Your task to perform on an android device: Turn on the flashlight Image 0: 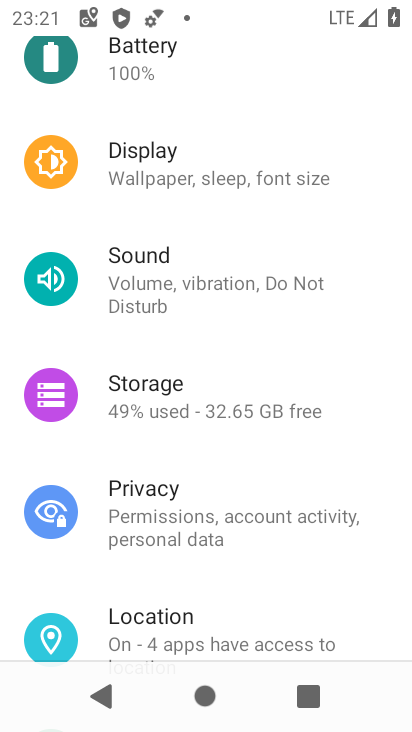
Step 0: drag from (318, 212) to (227, 720)
Your task to perform on an android device: Turn on the flashlight Image 1: 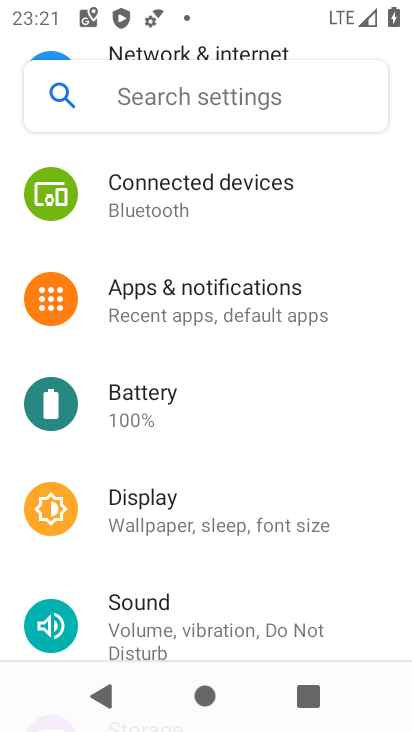
Step 1: click (185, 100)
Your task to perform on an android device: Turn on the flashlight Image 2: 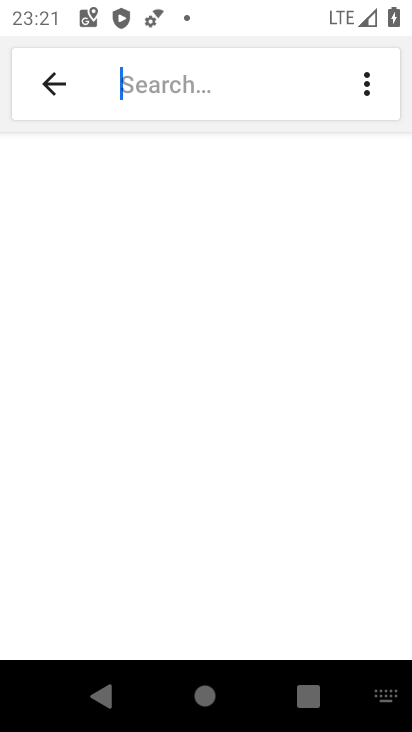
Step 2: type "flashlight"
Your task to perform on an android device: Turn on the flashlight Image 3: 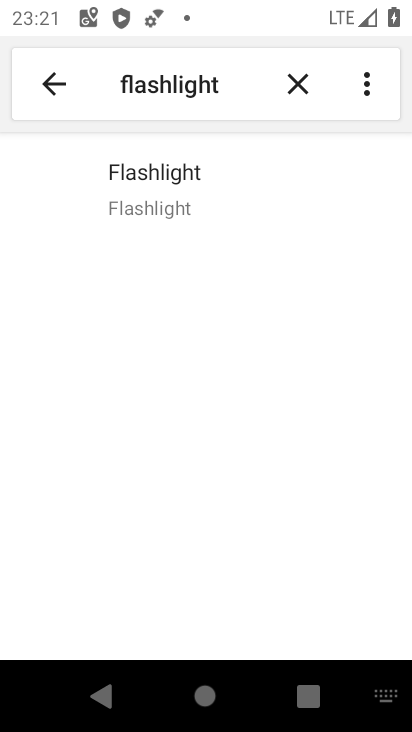
Step 3: click (207, 195)
Your task to perform on an android device: Turn on the flashlight Image 4: 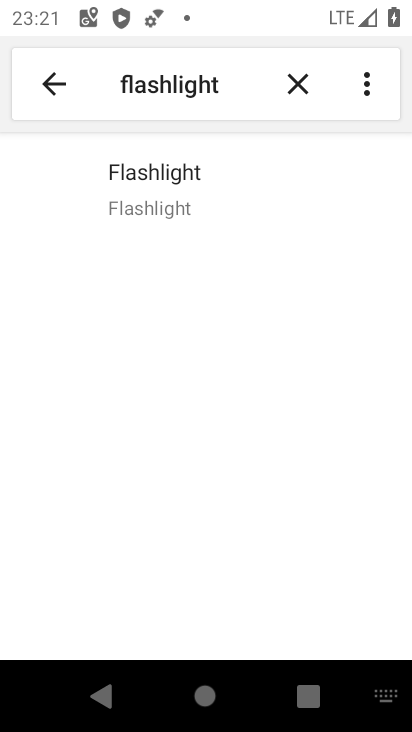
Step 4: click (190, 194)
Your task to perform on an android device: Turn on the flashlight Image 5: 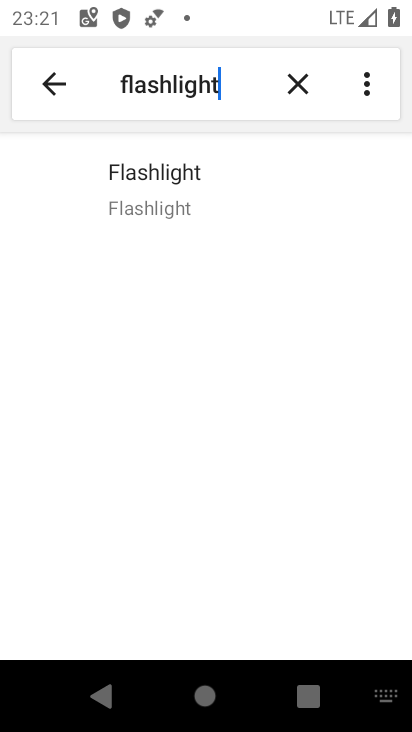
Step 5: task complete